Your task to perform on an android device: toggle improve location accuracy Image 0: 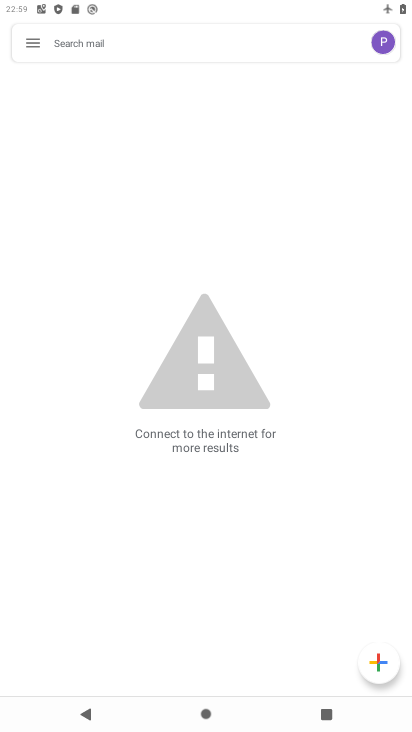
Step 0: press home button
Your task to perform on an android device: toggle improve location accuracy Image 1: 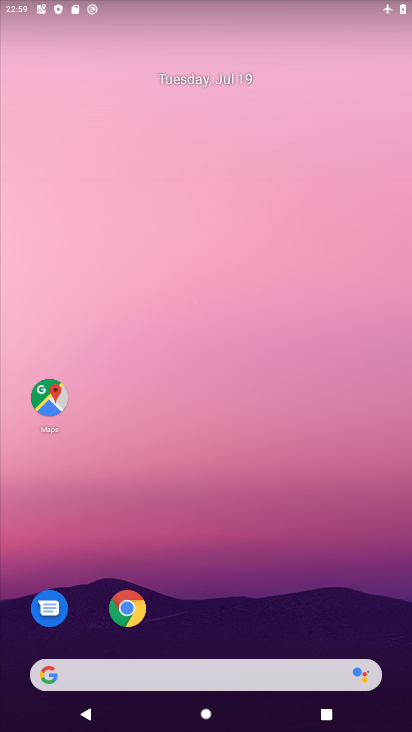
Step 1: drag from (268, 624) to (257, 129)
Your task to perform on an android device: toggle improve location accuracy Image 2: 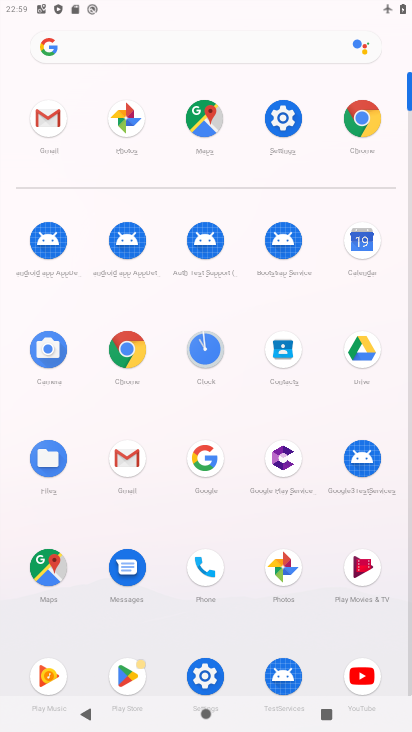
Step 2: click (290, 122)
Your task to perform on an android device: toggle improve location accuracy Image 3: 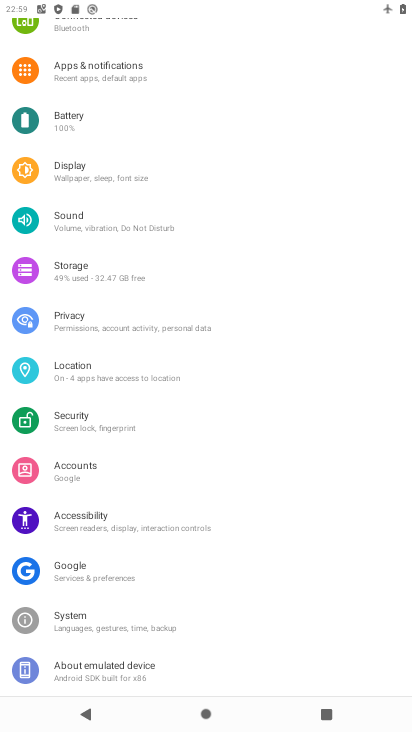
Step 3: click (91, 361)
Your task to perform on an android device: toggle improve location accuracy Image 4: 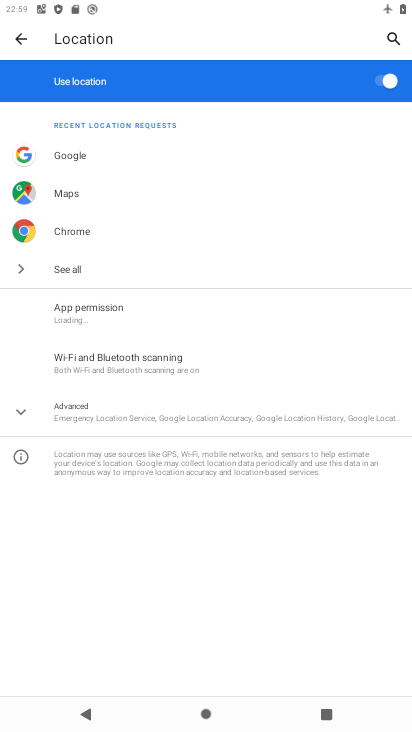
Step 4: click (128, 417)
Your task to perform on an android device: toggle improve location accuracy Image 5: 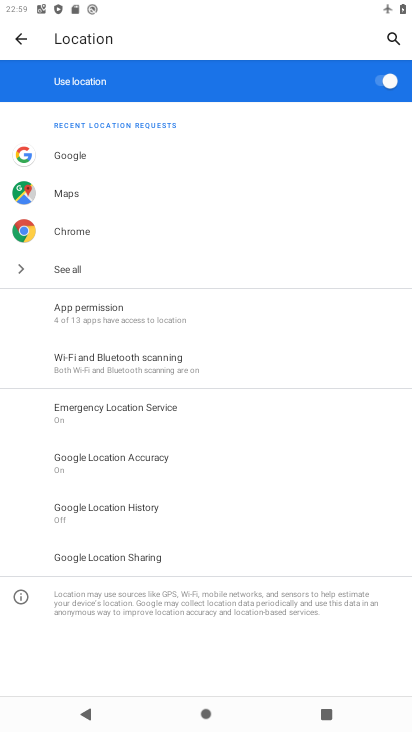
Step 5: click (149, 455)
Your task to perform on an android device: toggle improve location accuracy Image 6: 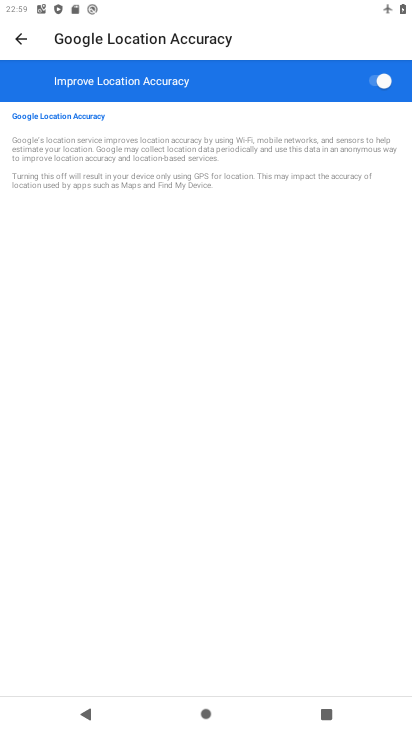
Step 6: click (386, 71)
Your task to perform on an android device: toggle improve location accuracy Image 7: 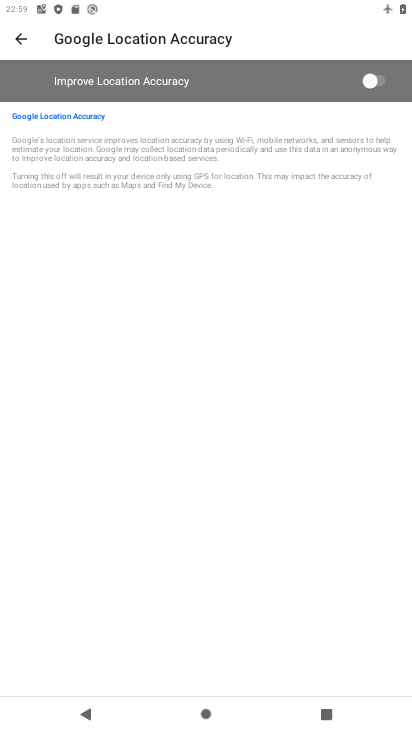
Step 7: task complete